Your task to perform on an android device: open the mobile data screen to see how much data has been used Image 0: 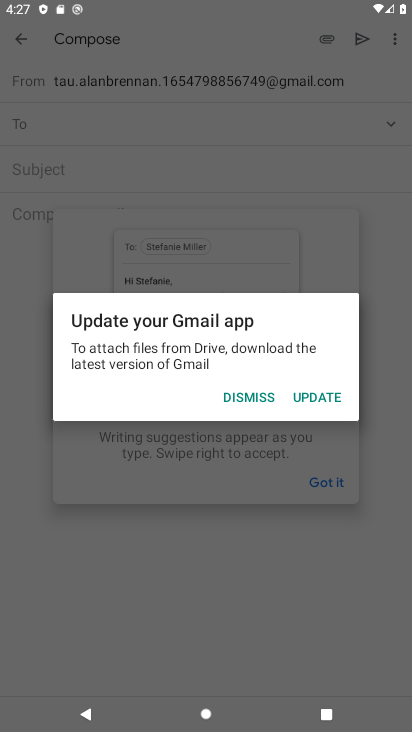
Step 0: press home button
Your task to perform on an android device: open the mobile data screen to see how much data has been used Image 1: 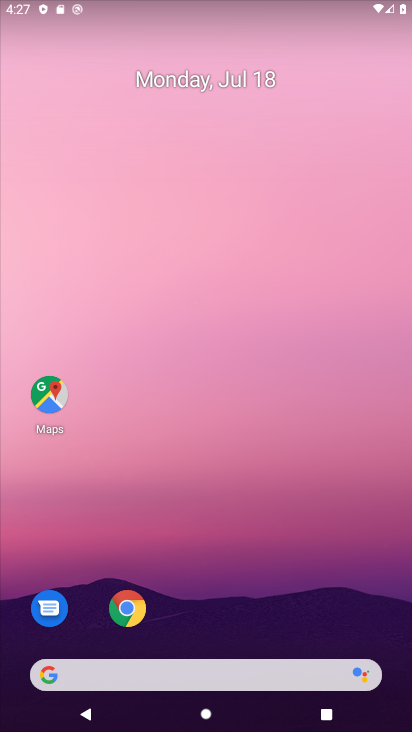
Step 1: drag from (6, 707) to (338, 63)
Your task to perform on an android device: open the mobile data screen to see how much data has been used Image 2: 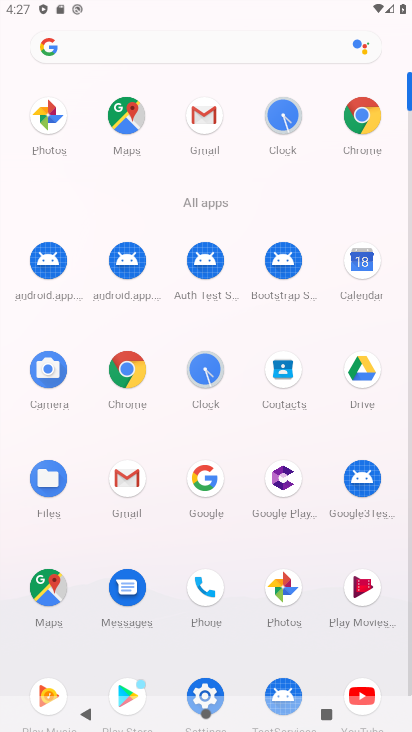
Step 2: click (204, 690)
Your task to perform on an android device: open the mobile data screen to see how much data has been used Image 3: 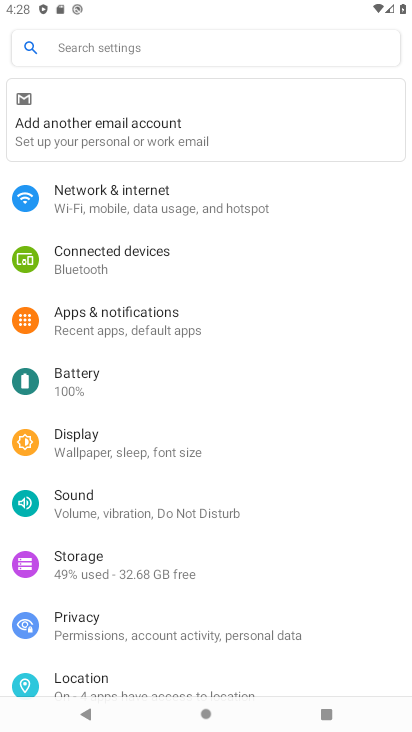
Step 3: click (147, 188)
Your task to perform on an android device: open the mobile data screen to see how much data has been used Image 4: 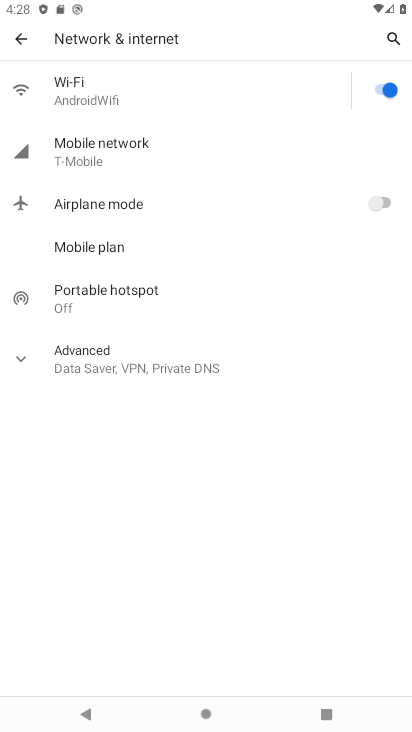
Step 4: click (112, 153)
Your task to perform on an android device: open the mobile data screen to see how much data has been used Image 5: 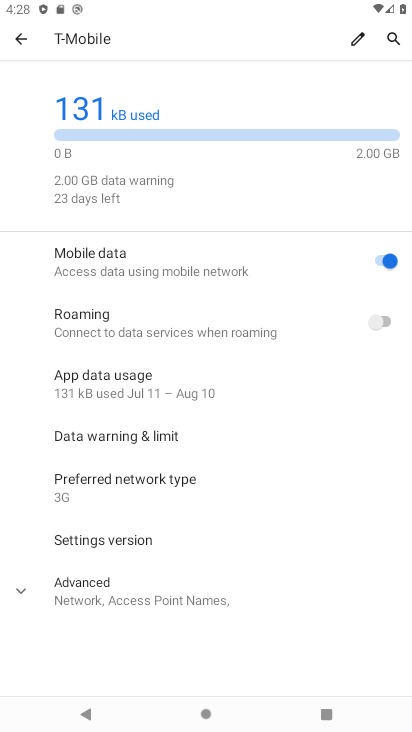
Step 5: task complete